Your task to perform on an android device: Open CNN.com Image 0: 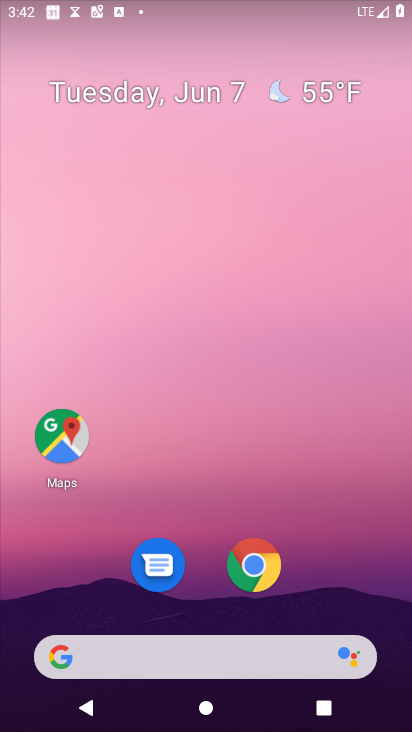
Step 0: drag from (270, 617) to (240, 72)
Your task to perform on an android device: Open CNN.com Image 1: 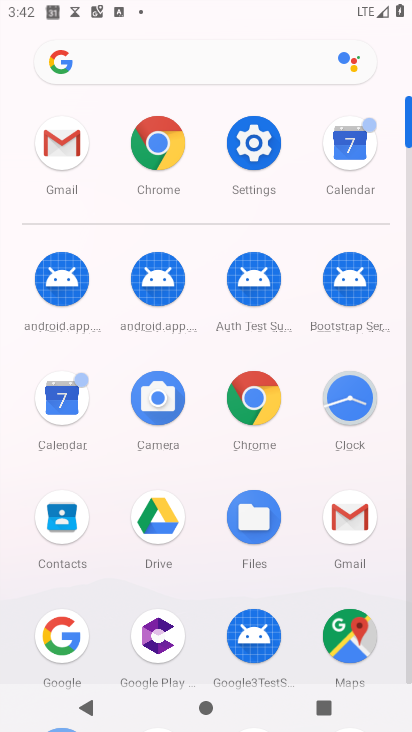
Step 1: click (260, 381)
Your task to perform on an android device: Open CNN.com Image 2: 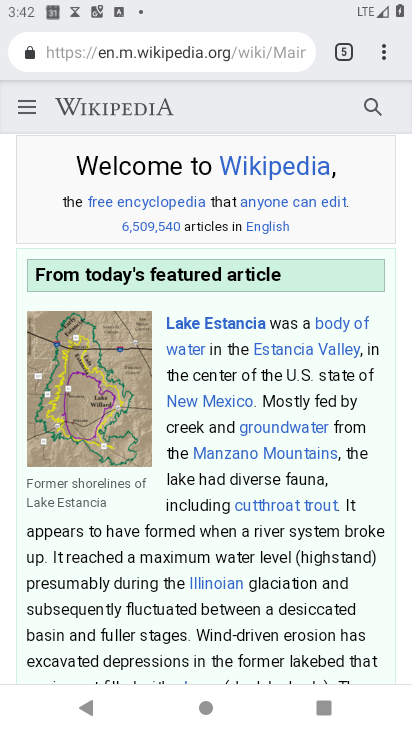
Step 2: click (235, 43)
Your task to perform on an android device: Open CNN.com Image 3: 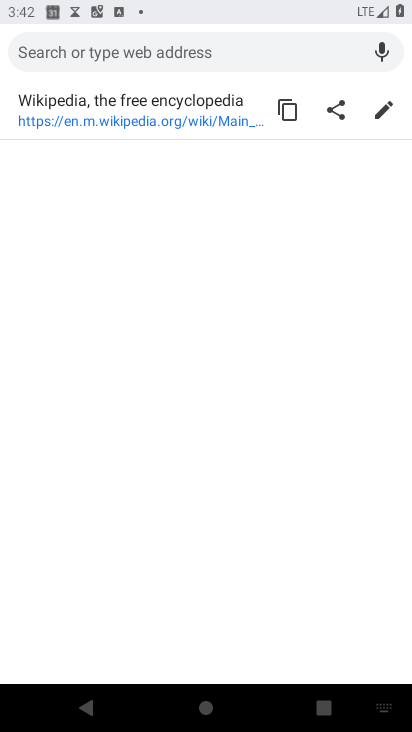
Step 3: type "cnn.com"
Your task to perform on an android device: Open CNN.com Image 4: 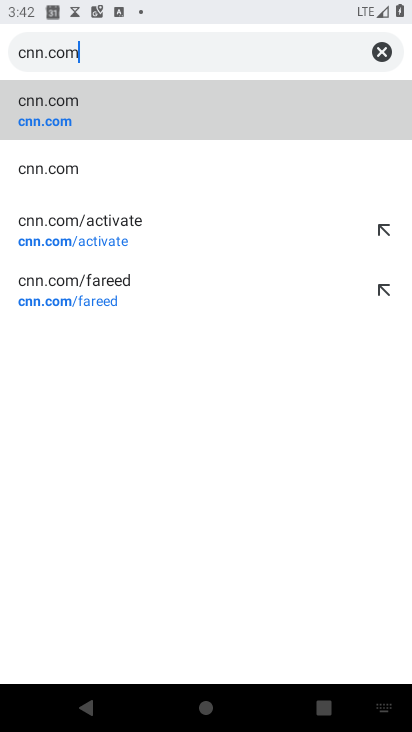
Step 4: click (123, 123)
Your task to perform on an android device: Open CNN.com Image 5: 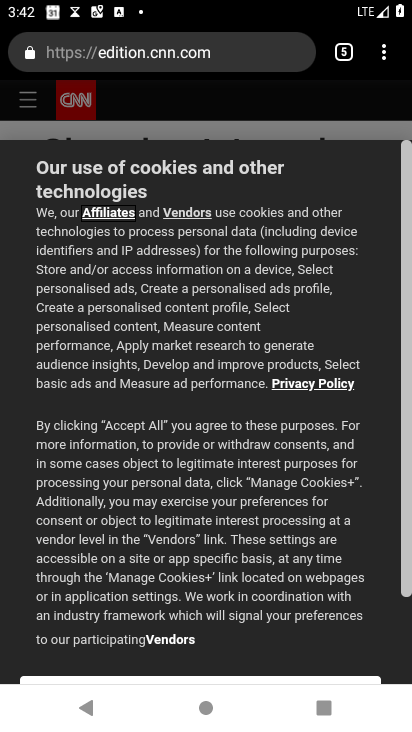
Step 5: task complete